Your task to perform on an android device: Open calendar and show me the first week of next month Image 0: 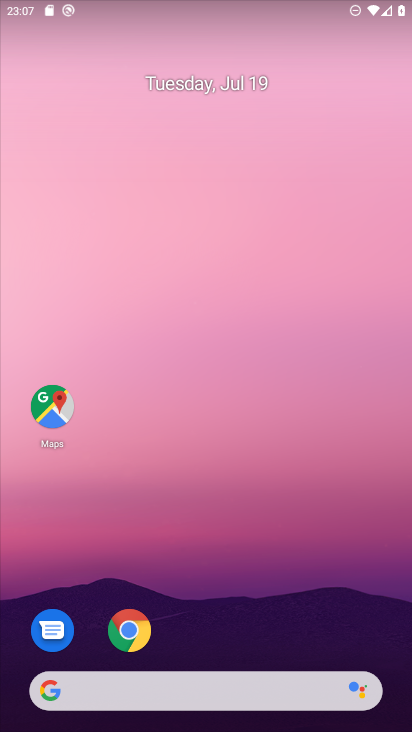
Step 0: drag from (222, 632) to (204, 277)
Your task to perform on an android device: Open calendar and show me the first week of next month Image 1: 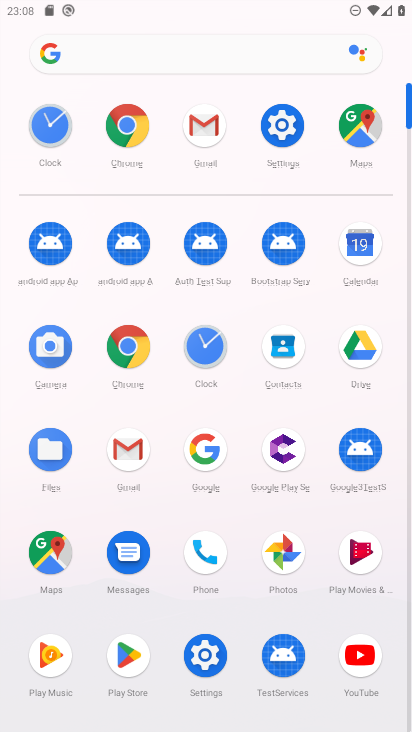
Step 1: click (346, 245)
Your task to perform on an android device: Open calendar and show me the first week of next month Image 2: 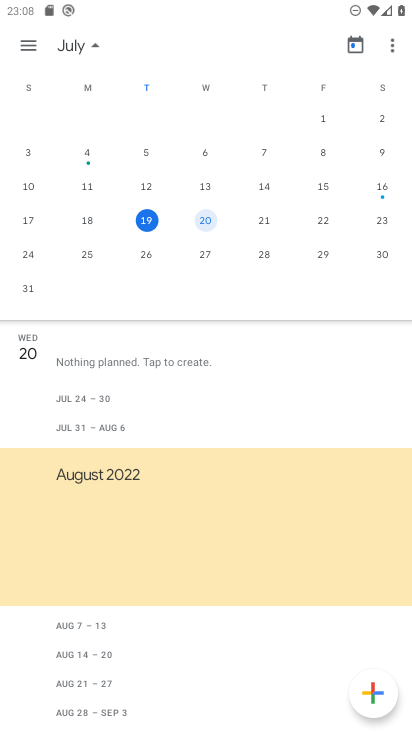
Step 2: drag from (314, 178) to (53, 164)
Your task to perform on an android device: Open calendar and show me the first week of next month Image 3: 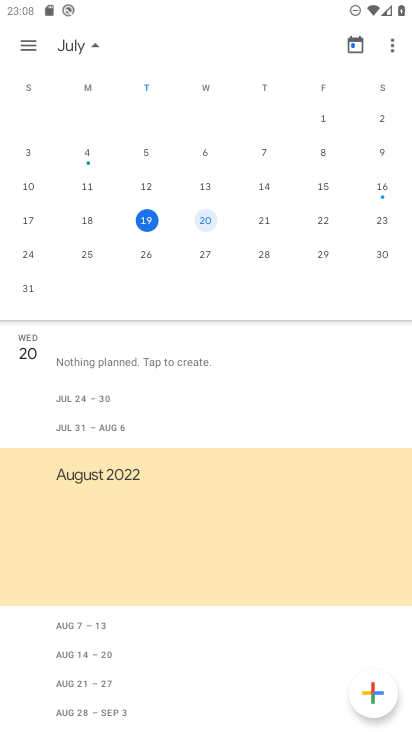
Step 3: drag from (350, 178) to (18, 163)
Your task to perform on an android device: Open calendar and show me the first week of next month Image 4: 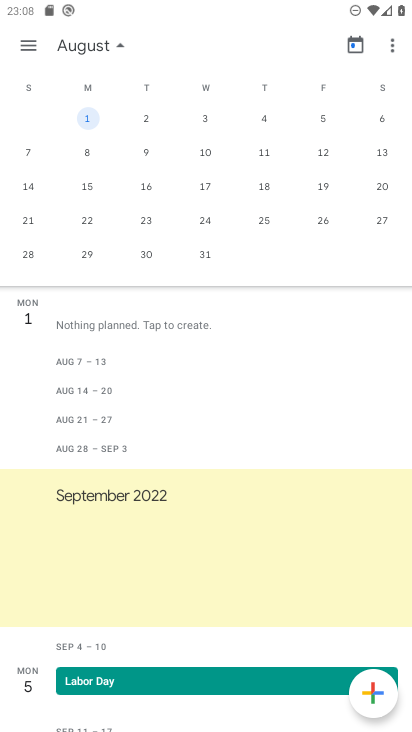
Step 4: click (77, 125)
Your task to perform on an android device: Open calendar and show me the first week of next month Image 5: 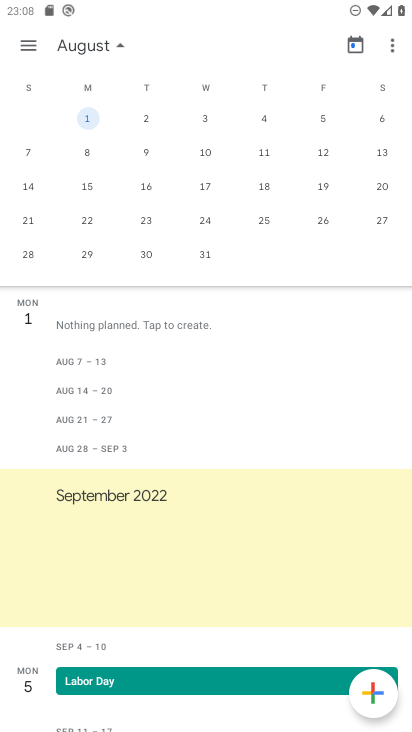
Step 5: task complete